Your task to perform on an android device: What is the news today? Image 0: 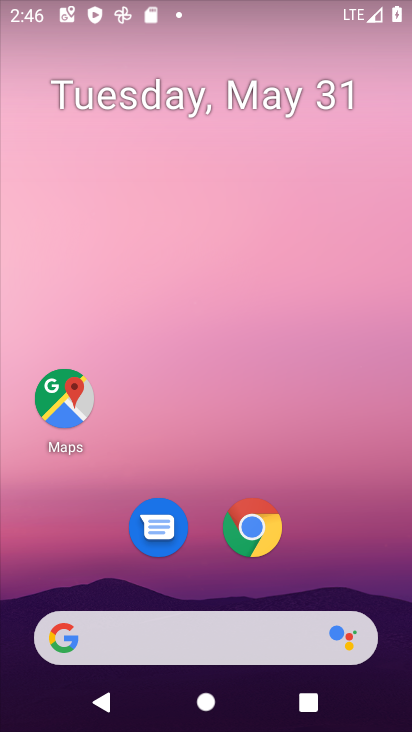
Step 0: drag from (369, 561) to (270, 66)
Your task to perform on an android device: What is the news today? Image 1: 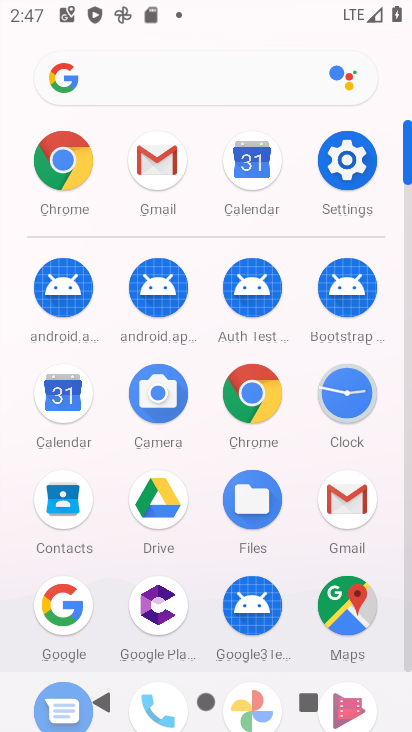
Step 1: click (63, 171)
Your task to perform on an android device: What is the news today? Image 2: 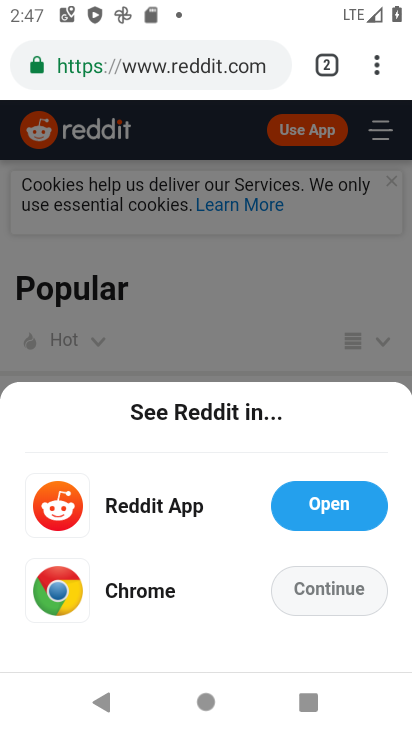
Step 2: task complete